Your task to perform on an android device: Open Maps and search for coffee Image 0: 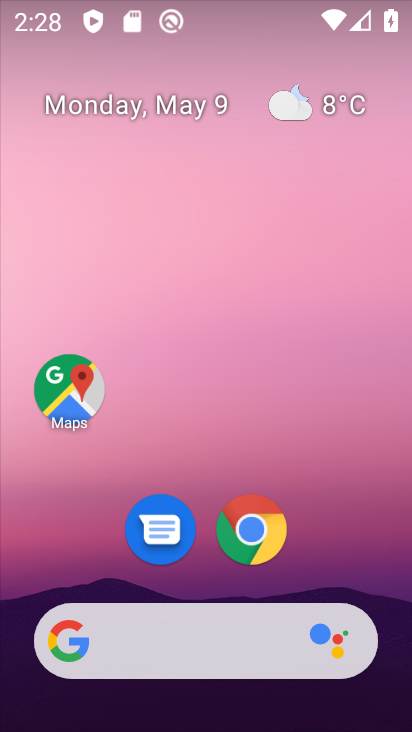
Step 0: click (93, 410)
Your task to perform on an android device: Open Maps and search for coffee Image 1: 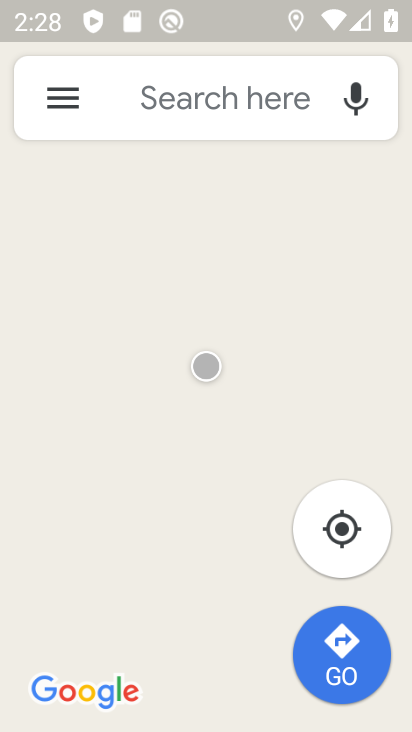
Step 1: click (211, 110)
Your task to perform on an android device: Open Maps and search for coffee Image 2: 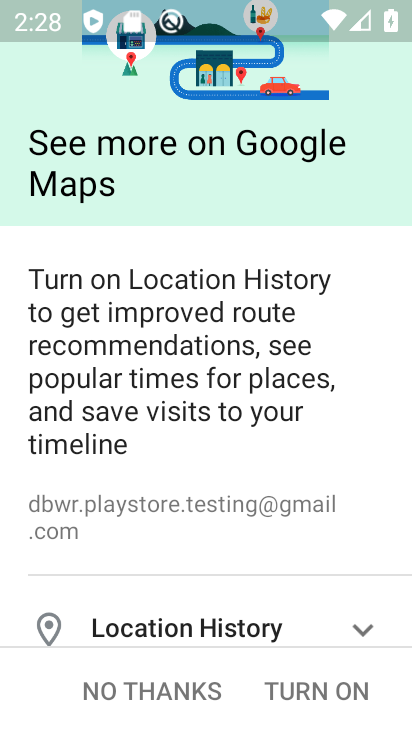
Step 2: click (186, 693)
Your task to perform on an android device: Open Maps and search for coffee Image 3: 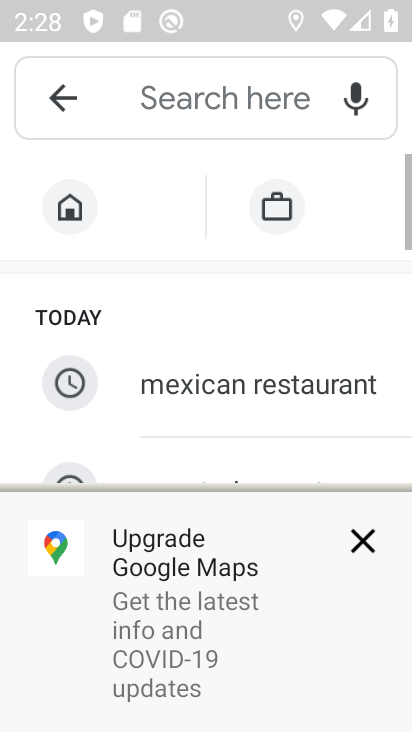
Step 3: click (247, 109)
Your task to perform on an android device: Open Maps and search for coffee Image 4: 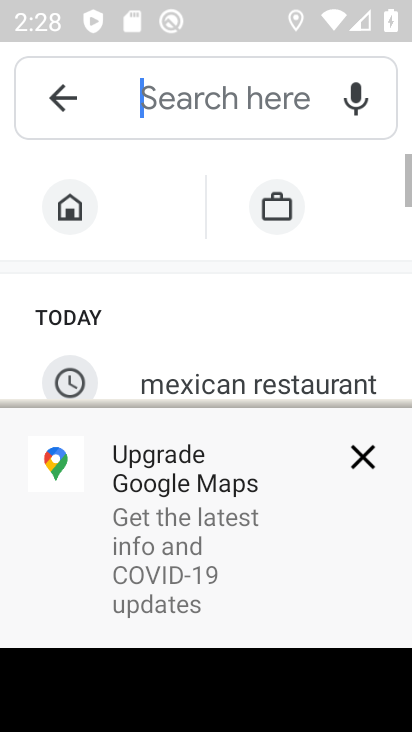
Step 4: click (366, 462)
Your task to perform on an android device: Open Maps and search for coffee Image 5: 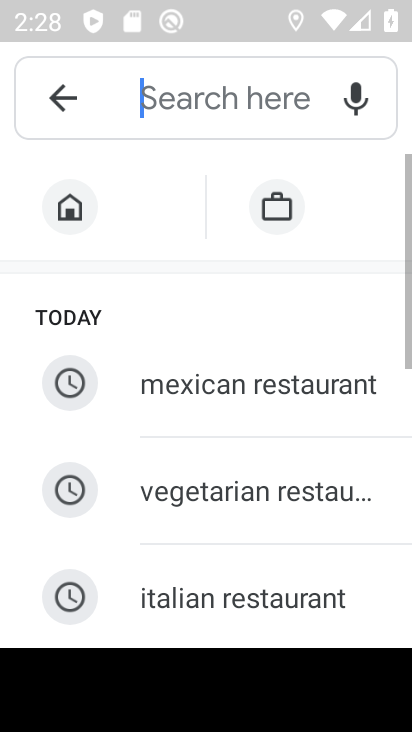
Step 5: drag from (218, 609) to (167, 216)
Your task to perform on an android device: Open Maps and search for coffee Image 6: 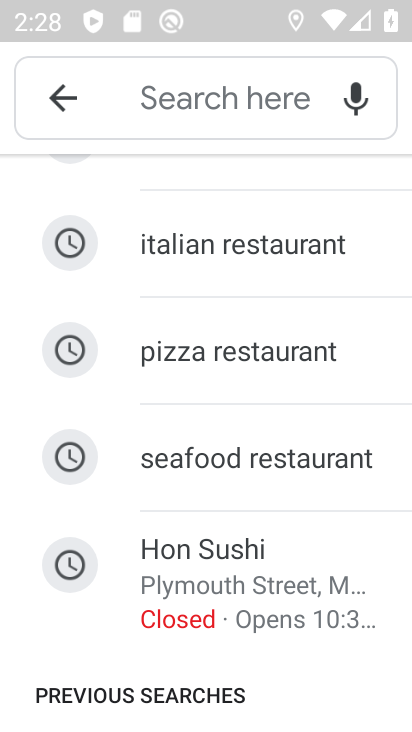
Step 6: drag from (306, 234) to (313, 546)
Your task to perform on an android device: Open Maps and search for coffee Image 7: 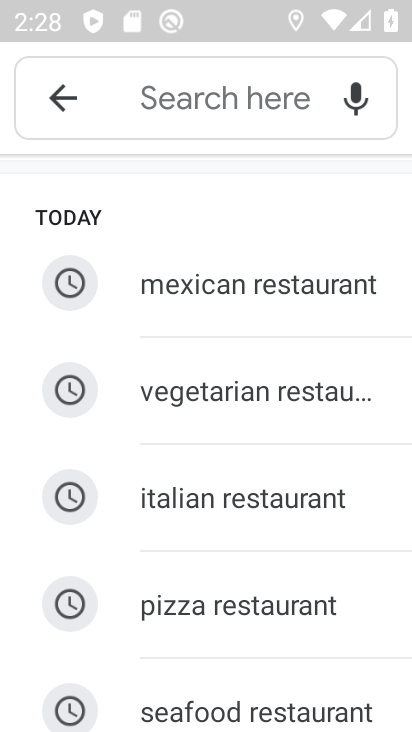
Step 7: click (251, 92)
Your task to perform on an android device: Open Maps and search for coffee Image 8: 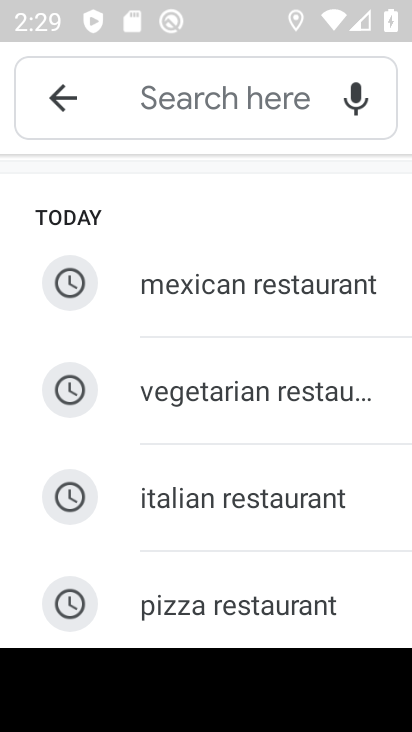
Step 8: type "coffee"
Your task to perform on an android device: Open Maps and search for coffee Image 9: 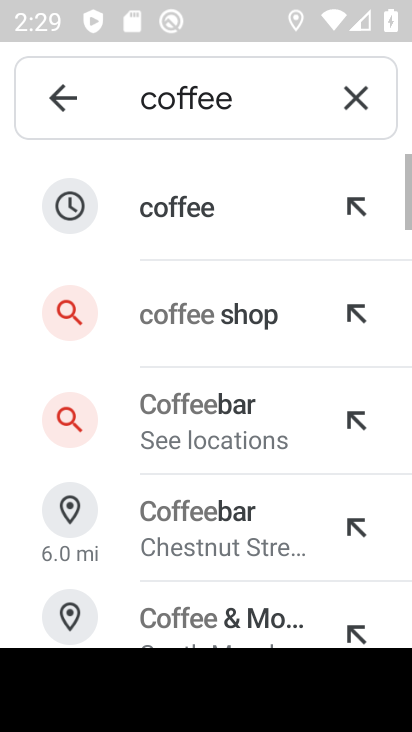
Step 9: click (210, 200)
Your task to perform on an android device: Open Maps and search for coffee Image 10: 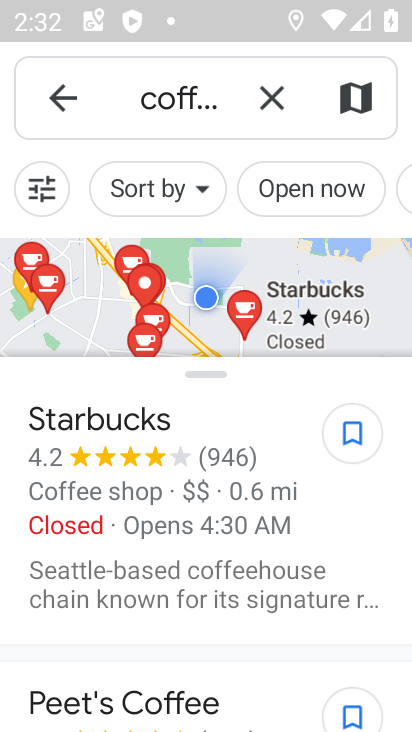
Step 10: task complete